Your task to perform on an android device: turn off sleep mode Image 0: 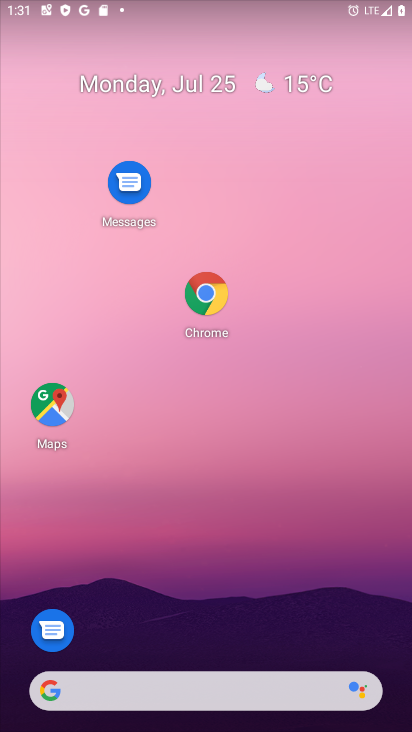
Step 0: press home button
Your task to perform on an android device: turn off sleep mode Image 1: 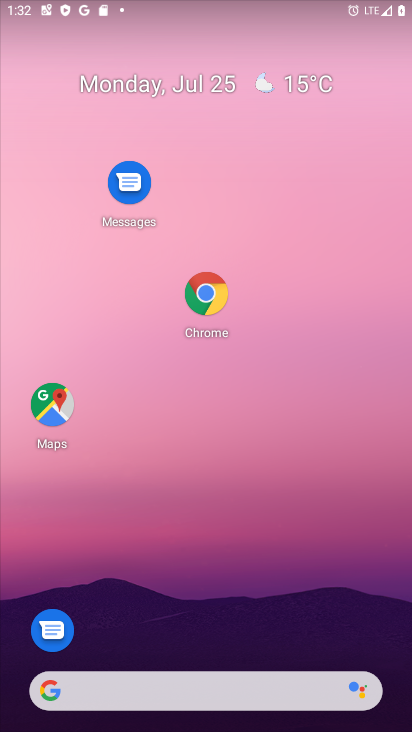
Step 1: drag from (213, 408) to (212, 297)
Your task to perform on an android device: turn off sleep mode Image 2: 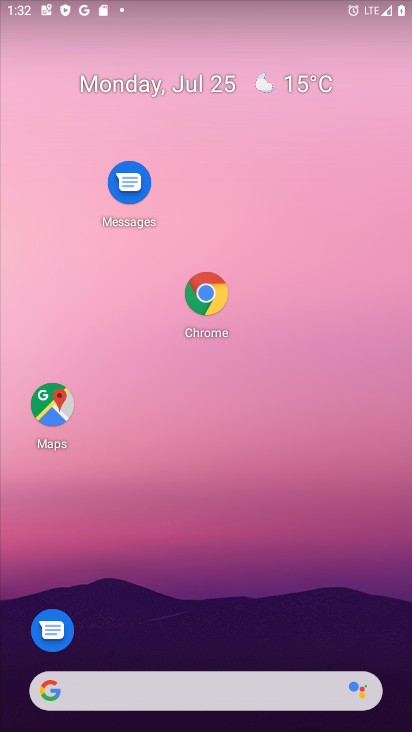
Step 2: drag from (264, 642) to (231, 228)
Your task to perform on an android device: turn off sleep mode Image 3: 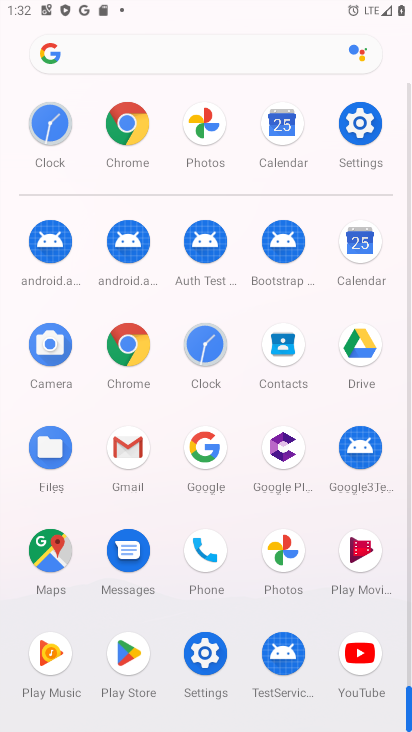
Step 3: click (361, 113)
Your task to perform on an android device: turn off sleep mode Image 4: 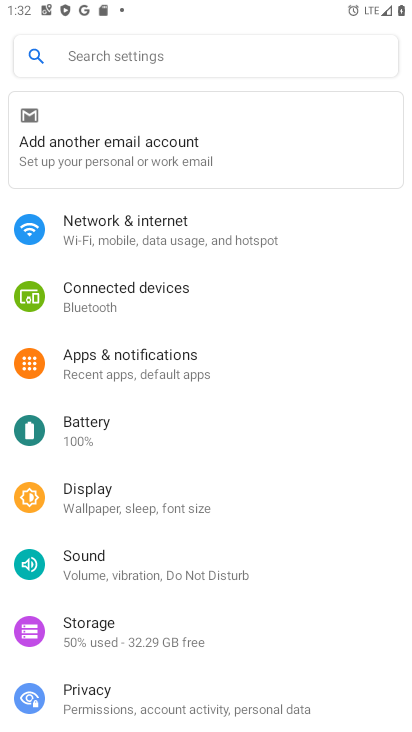
Step 4: click (70, 497)
Your task to perform on an android device: turn off sleep mode Image 5: 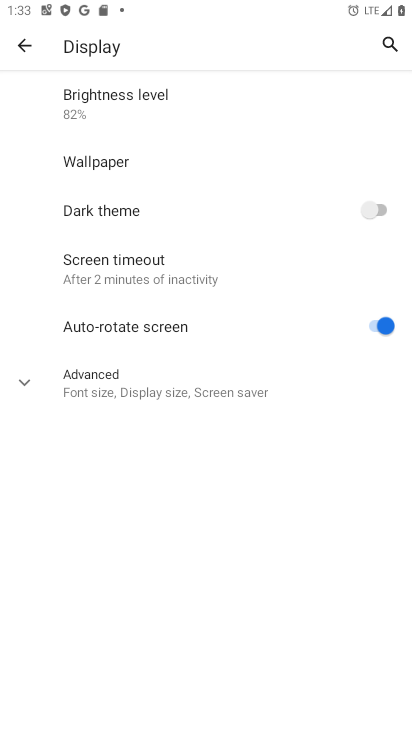
Step 5: task complete